Your task to perform on an android device: Open eBay Image 0: 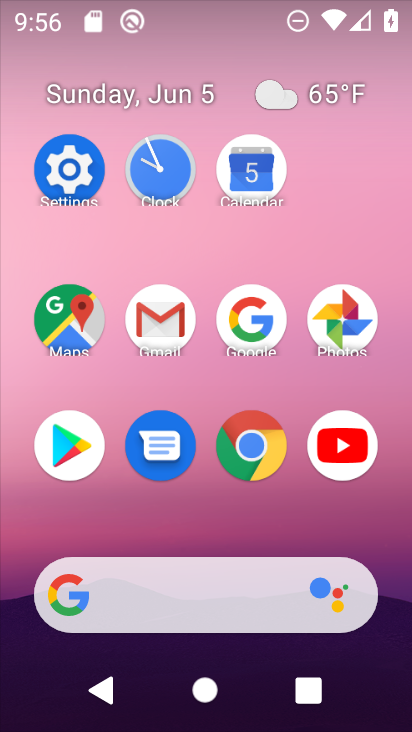
Step 0: click (247, 323)
Your task to perform on an android device: Open eBay Image 1: 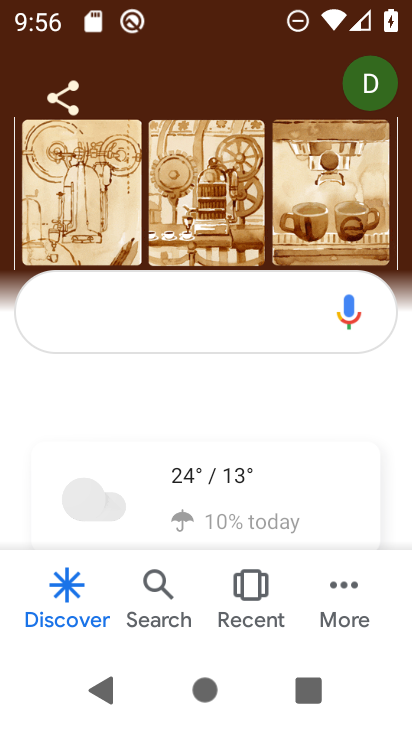
Step 1: click (226, 305)
Your task to perform on an android device: Open eBay Image 2: 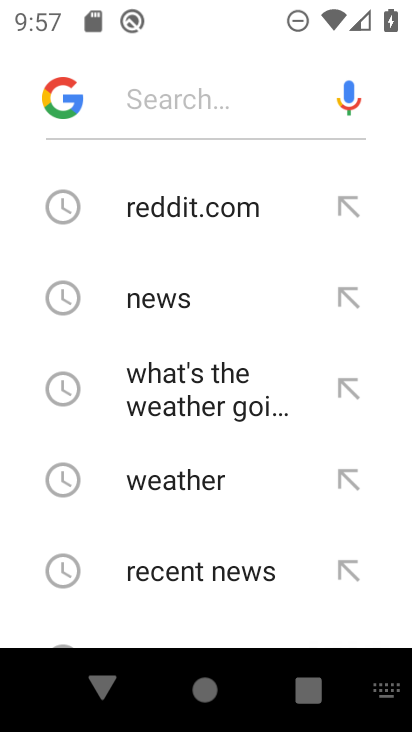
Step 2: drag from (247, 466) to (269, 107)
Your task to perform on an android device: Open eBay Image 3: 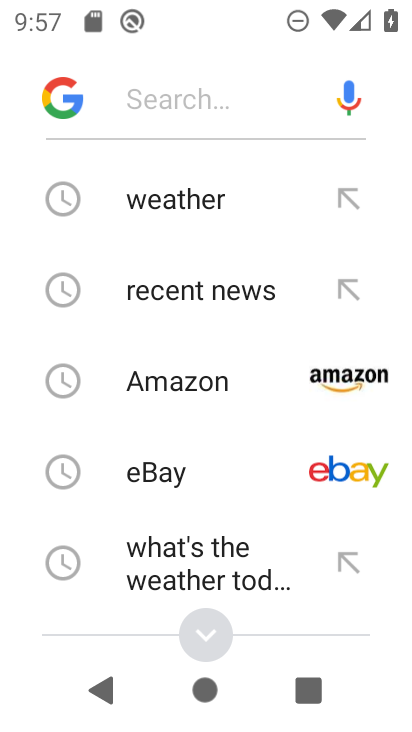
Step 3: click (183, 479)
Your task to perform on an android device: Open eBay Image 4: 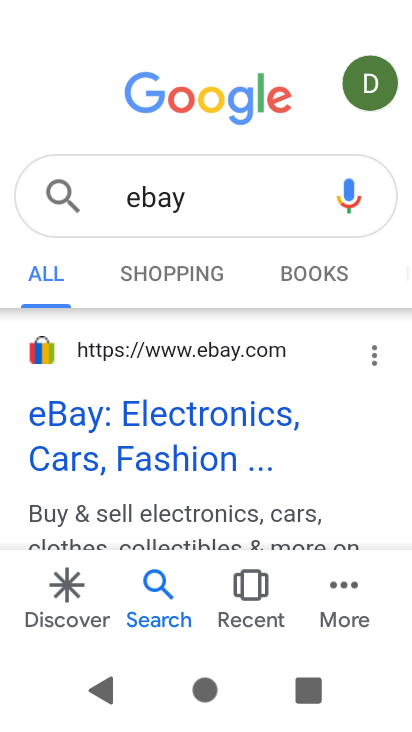
Step 4: task complete